Your task to perform on an android device: delete location history Image 0: 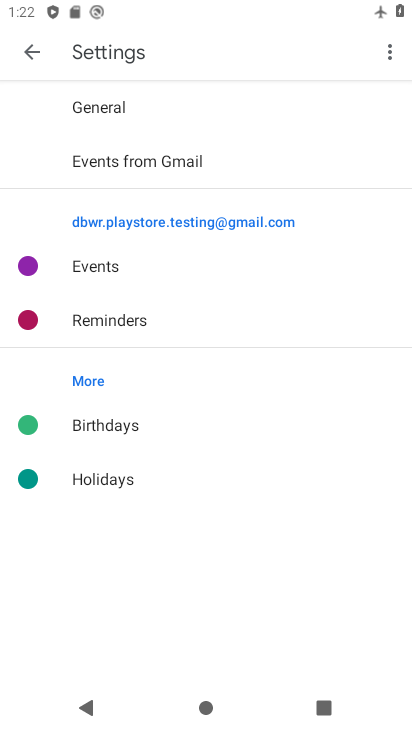
Step 0: press home button
Your task to perform on an android device: delete location history Image 1: 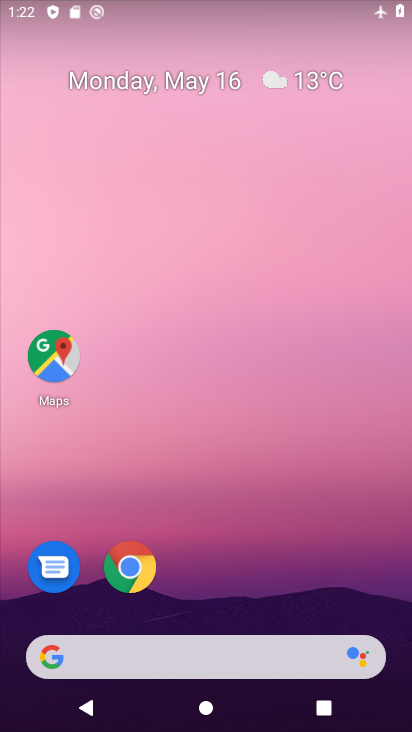
Step 1: drag from (214, 522) to (121, 31)
Your task to perform on an android device: delete location history Image 2: 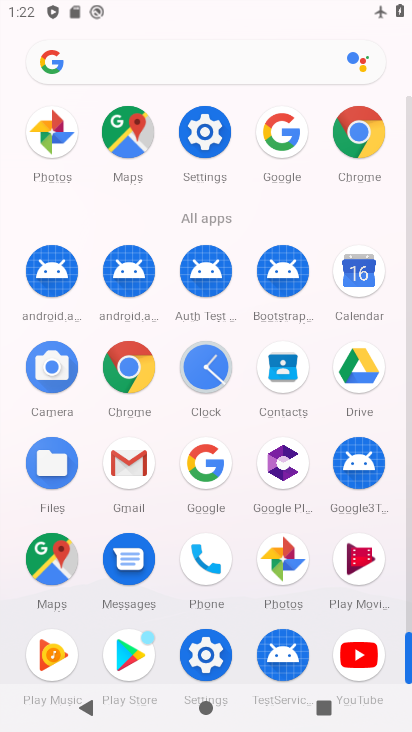
Step 2: click (197, 129)
Your task to perform on an android device: delete location history Image 3: 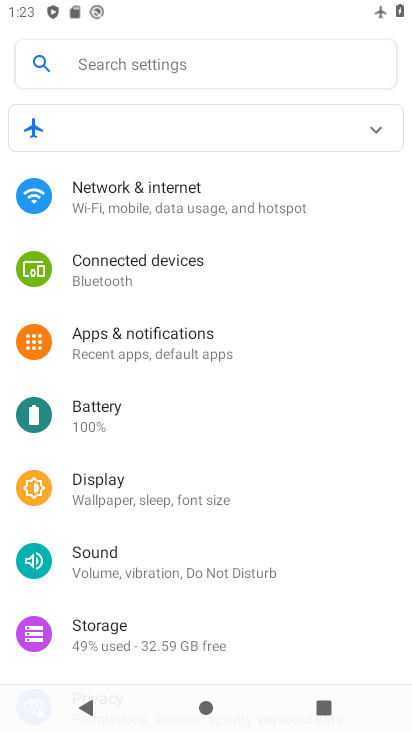
Step 3: drag from (156, 521) to (120, 308)
Your task to perform on an android device: delete location history Image 4: 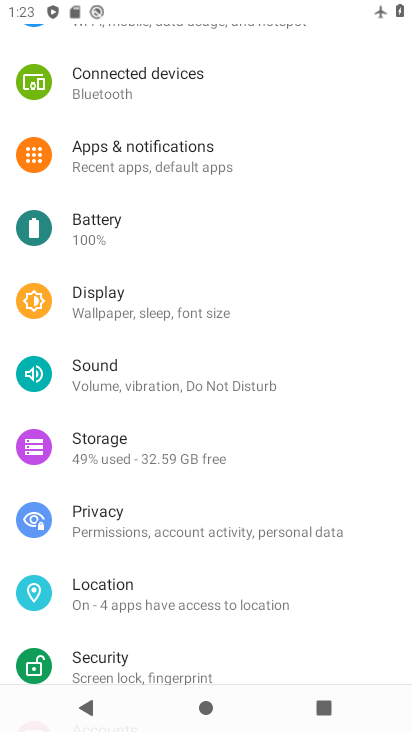
Step 4: drag from (154, 497) to (105, 303)
Your task to perform on an android device: delete location history Image 5: 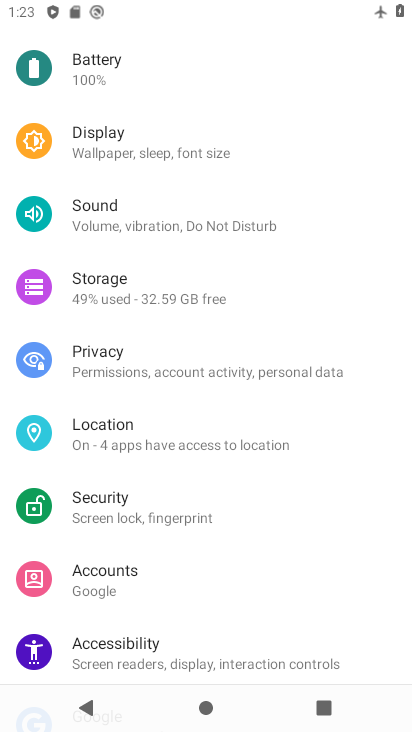
Step 5: click (110, 428)
Your task to perform on an android device: delete location history Image 6: 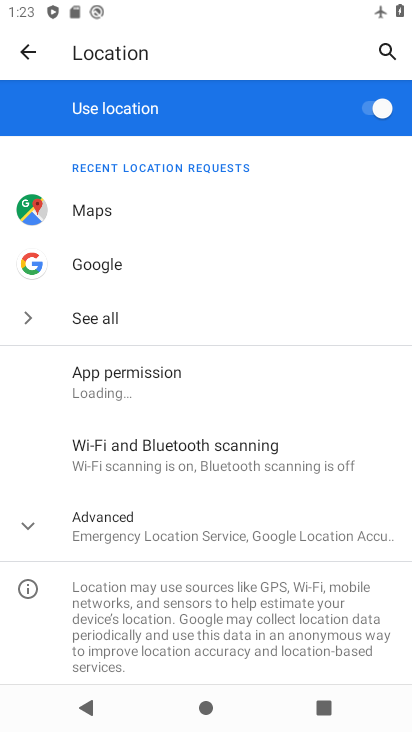
Step 6: click (49, 524)
Your task to perform on an android device: delete location history Image 7: 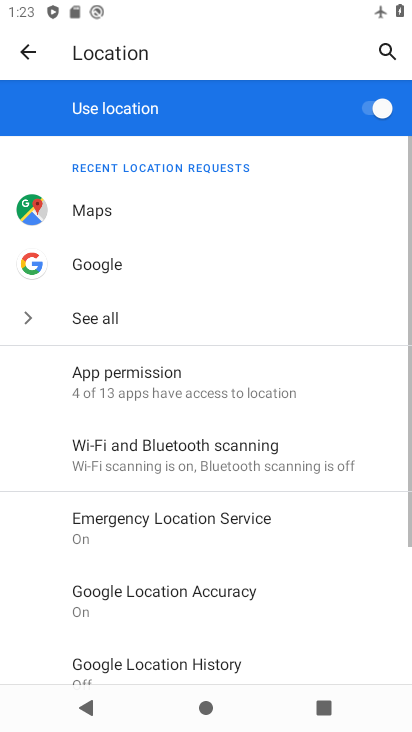
Step 7: drag from (313, 604) to (273, 437)
Your task to perform on an android device: delete location history Image 8: 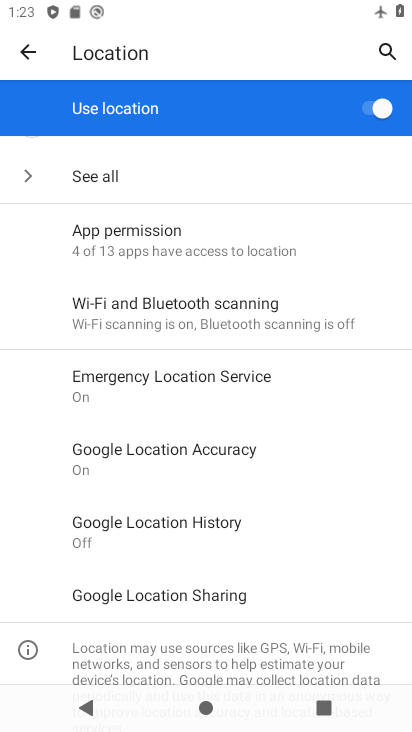
Step 8: click (137, 529)
Your task to perform on an android device: delete location history Image 9: 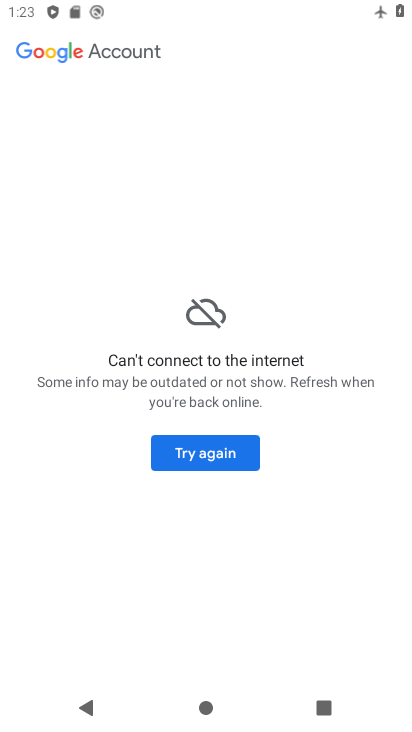
Step 9: task complete